Your task to perform on an android device: all mails in gmail Image 0: 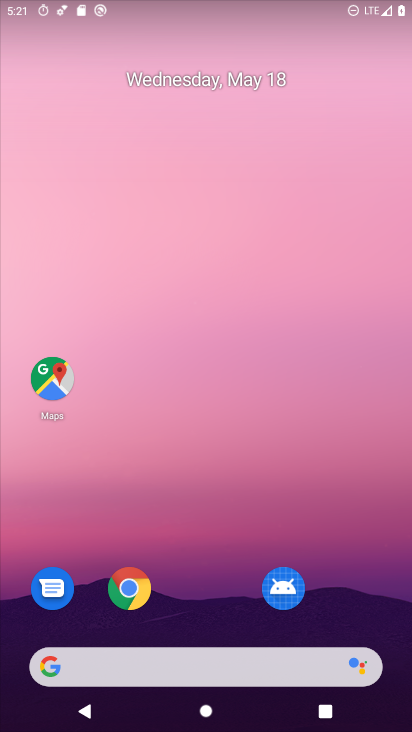
Step 0: drag from (202, 602) to (212, 237)
Your task to perform on an android device: all mails in gmail Image 1: 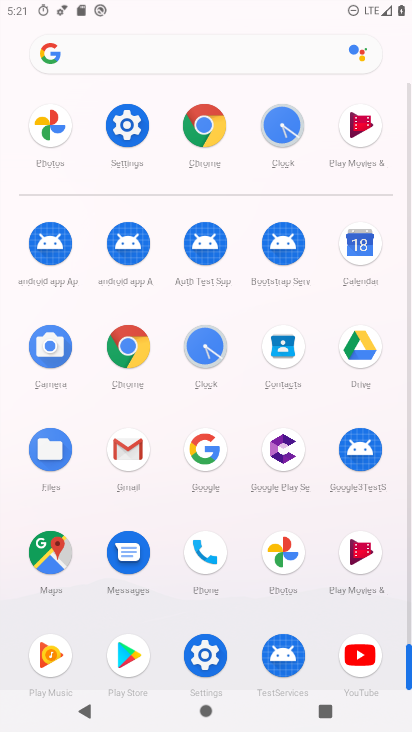
Step 1: click (114, 443)
Your task to perform on an android device: all mails in gmail Image 2: 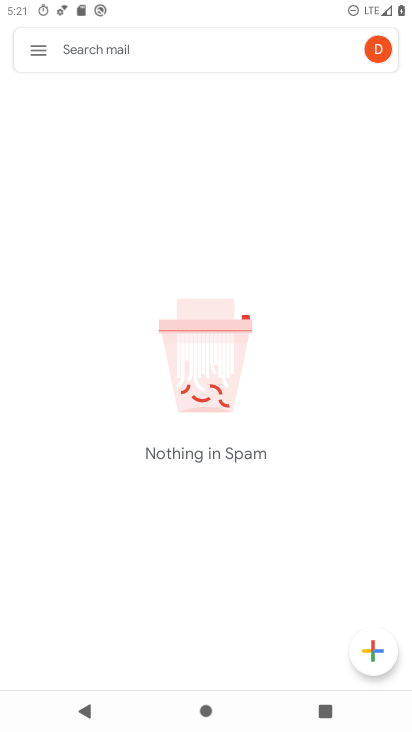
Step 2: click (31, 38)
Your task to perform on an android device: all mails in gmail Image 3: 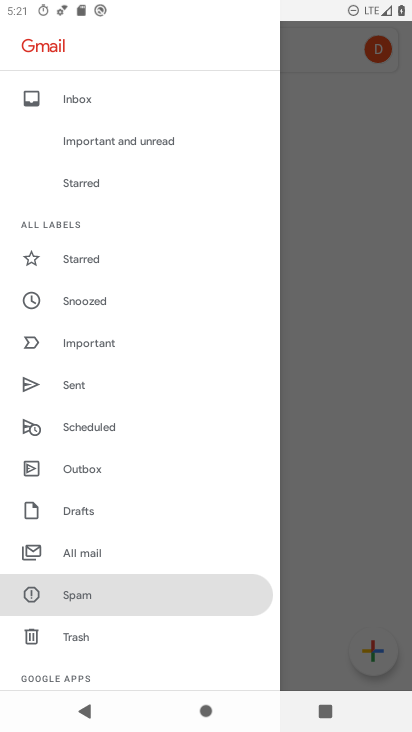
Step 3: click (107, 553)
Your task to perform on an android device: all mails in gmail Image 4: 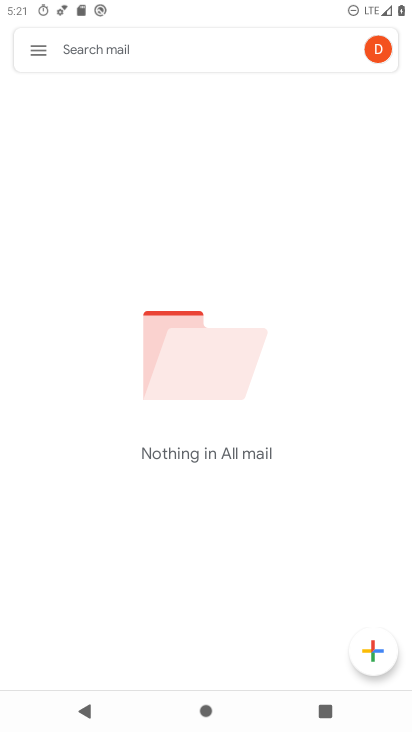
Step 4: task complete